Your task to perform on an android device: delete location history Image 0: 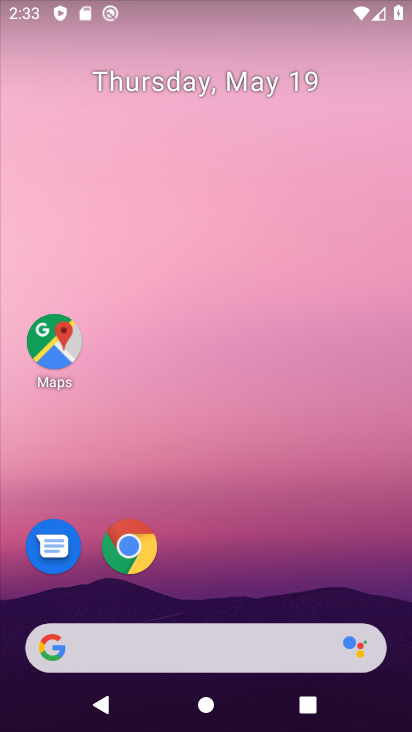
Step 0: press home button
Your task to perform on an android device: delete location history Image 1: 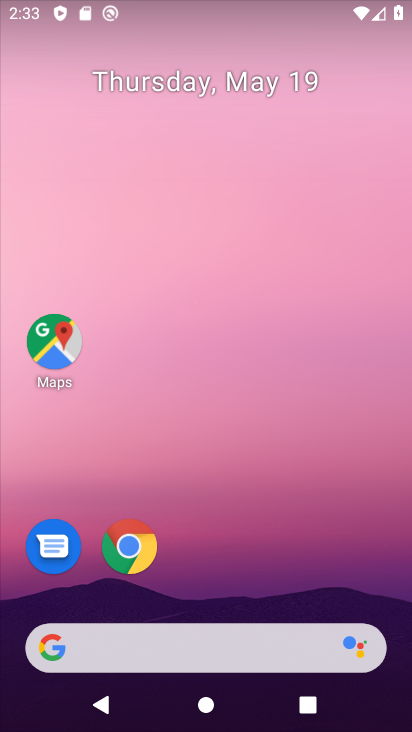
Step 1: click (51, 353)
Your task to perform on an android device: delete location history Image 2: 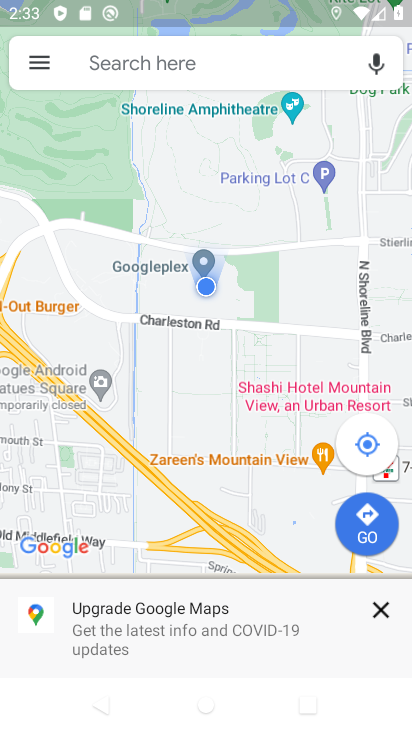
Step 2: click (37, 54)
Your task to perform on an android device: delete location history Image 3: 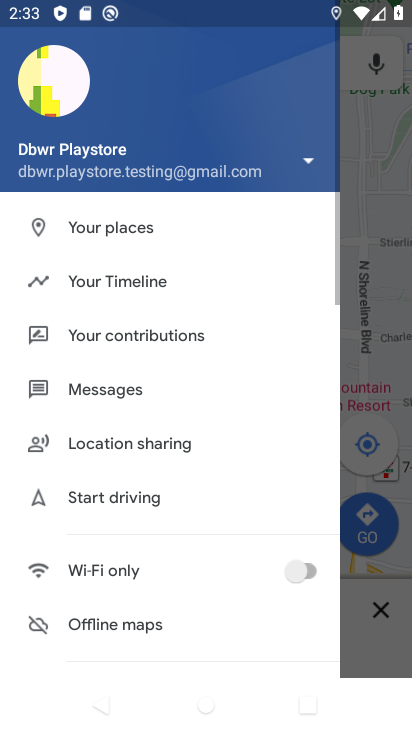
Step 3: click (121, 279)
Your task to perform on an android device: delete location history Image 4: 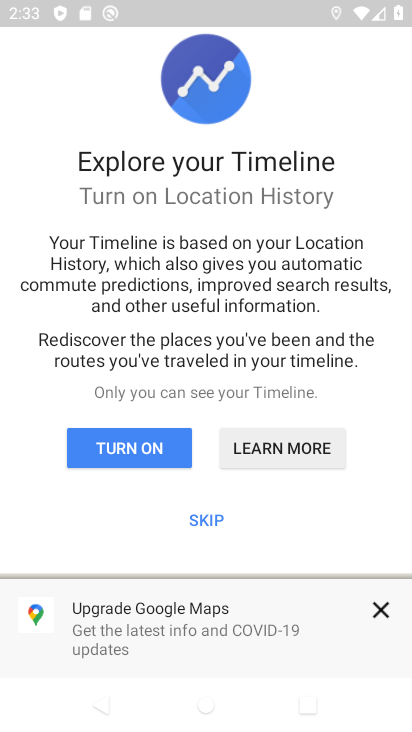
Step 4: click (217, 515)
Your task to perform on an android device: delete location history Image 5: 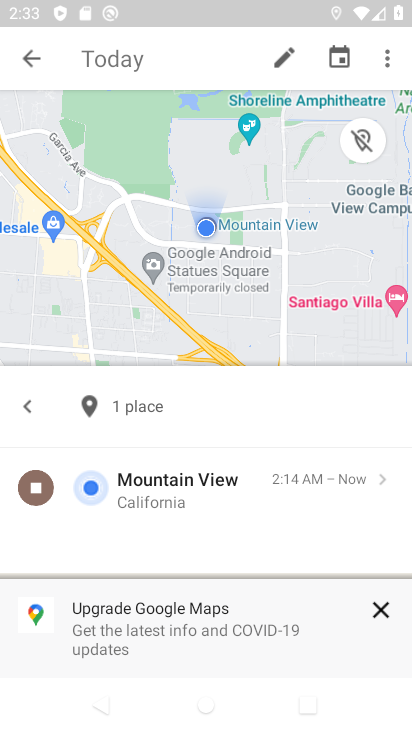
Step 5: click (387, 63)
Your task to perform on an android device: delete location history Image 6: 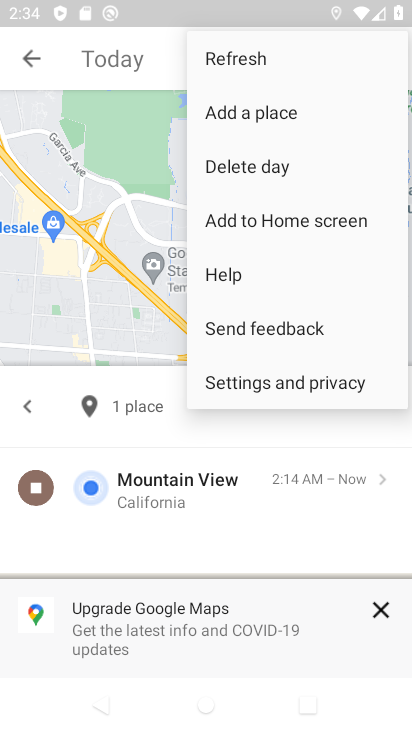
Step 6: click (254, 378)
Your task to perform on an android device: delete location history Image 7: 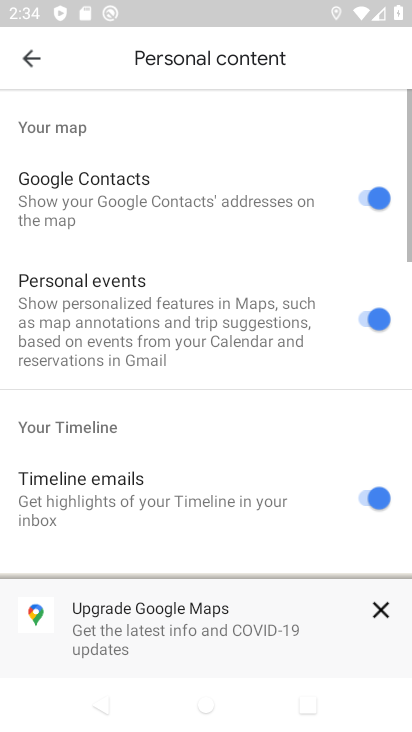
Step 7: drag from (179, 536) to (319, 70)
Your task to perform on an android device: delete location history Image 8: 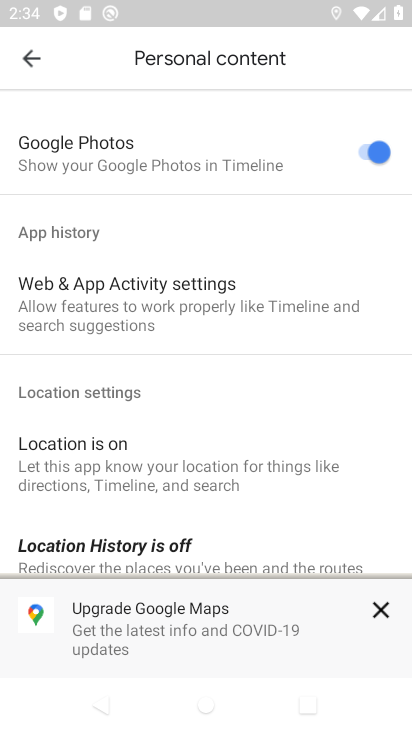
Step 8: drag from (242, 502) to (377, 115)
Your task to perform on an android device: delete location history Image 9: 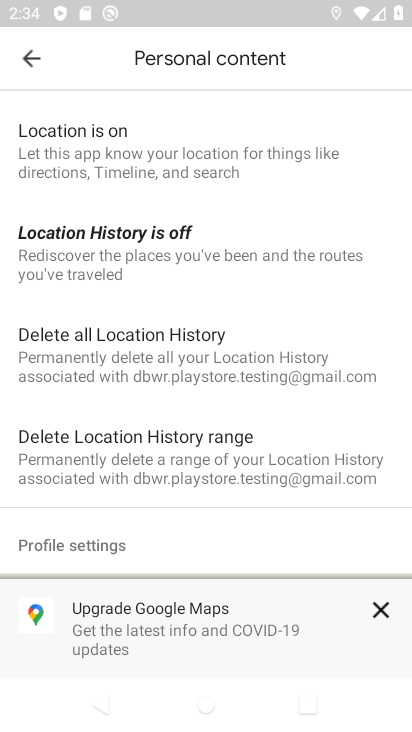
Step 9: click (138, 341)
Your task to perform on an android device: delete location history Image 10: 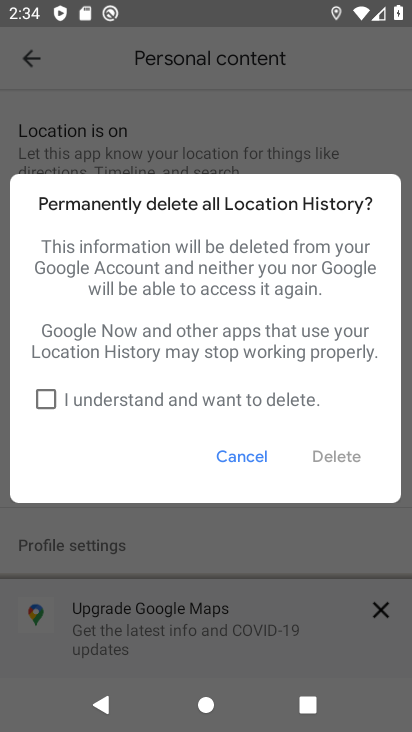
Step 10: click (44, 403)
Your task to perform on an android device: delete location history Image 11: 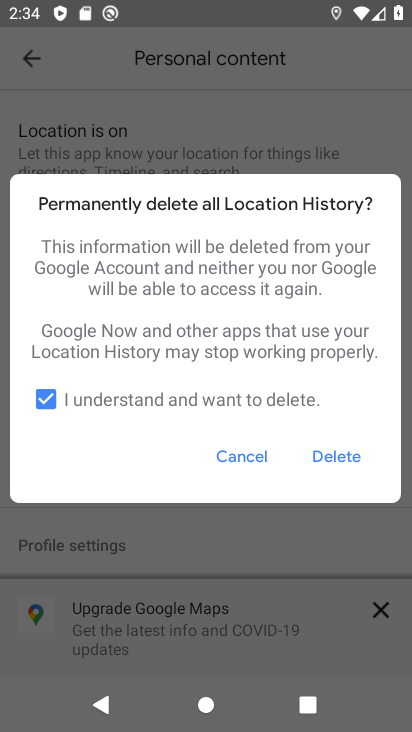
Step 11: click (344, 452)
Your task to perform on an android device: delete location history Image 12: 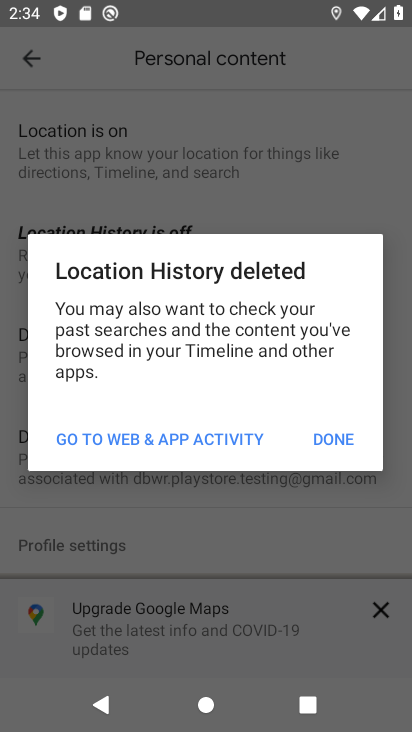
Step 12: click (341, 432)
Your task to perform on an android device: delete location history Image 13: 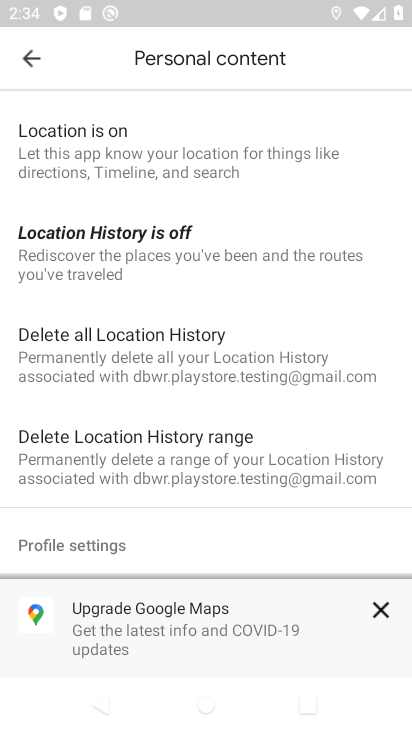
Step 13: task complete